Your task to perform on an android device: turn off picture-in-picture Image 0: 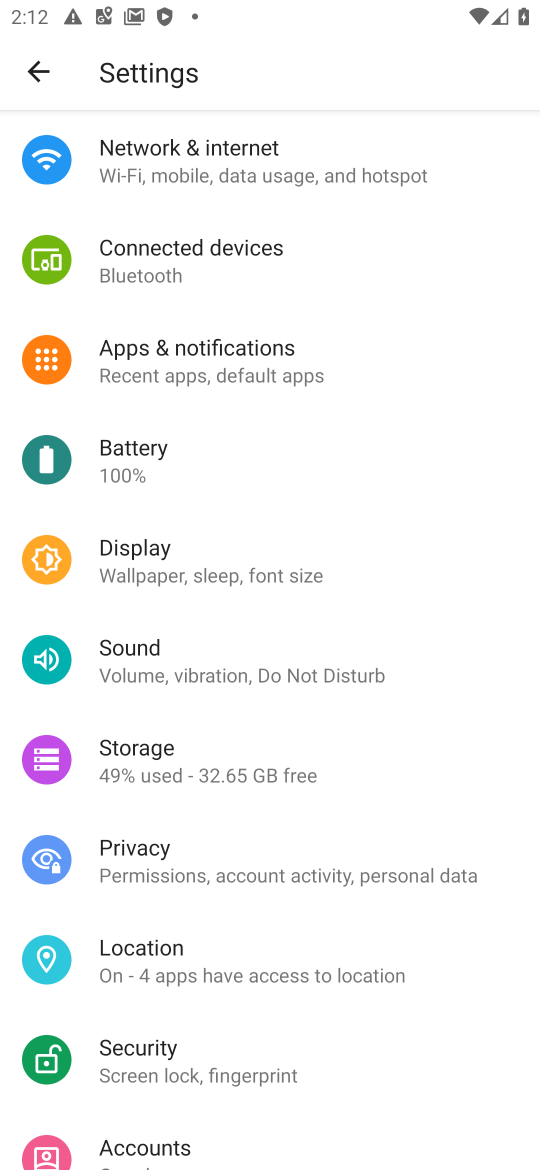
Step 0: press home button
Your task to perform on an android device: turn off picture-in-picture Image 1: 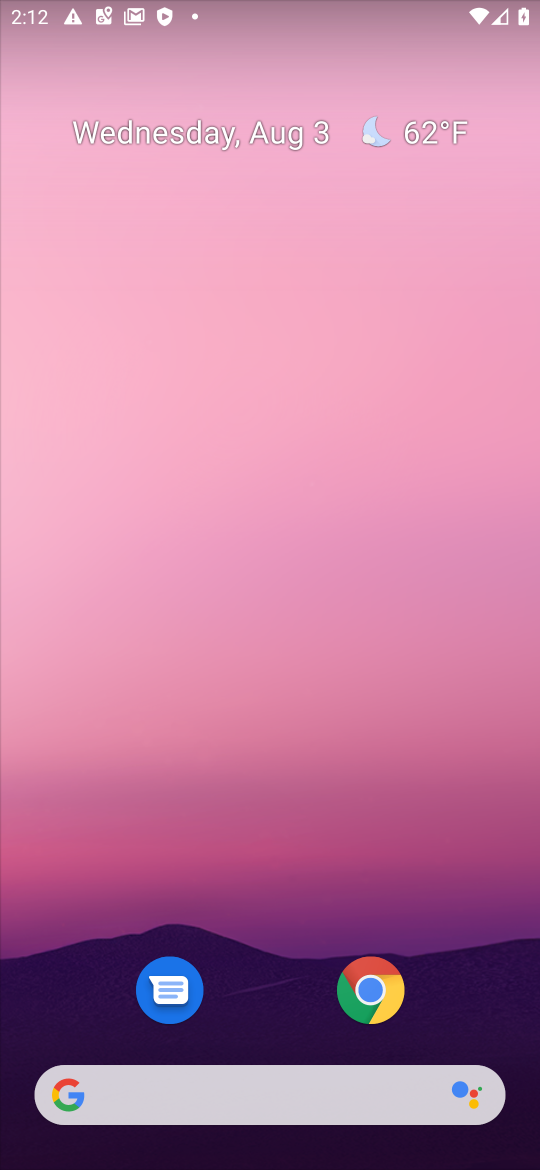
Step 1: click (384, 994)
Your task to perform on an android device: turn off picture-in-picture Image 2: 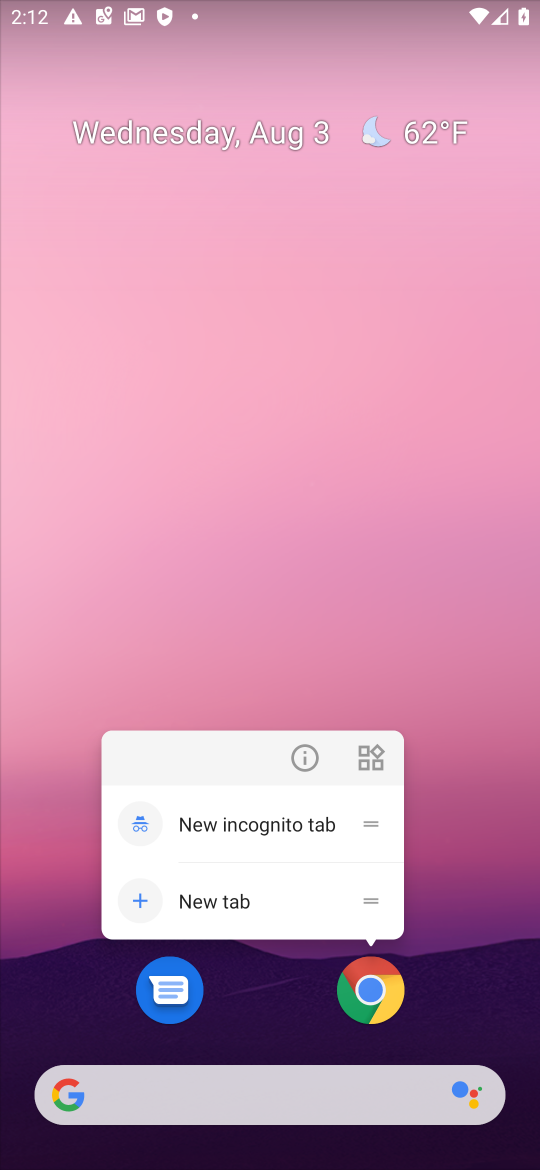
Step 2: click (300, 750)
Your task to perform on an android device: turn off picture-in-picture Image 3: 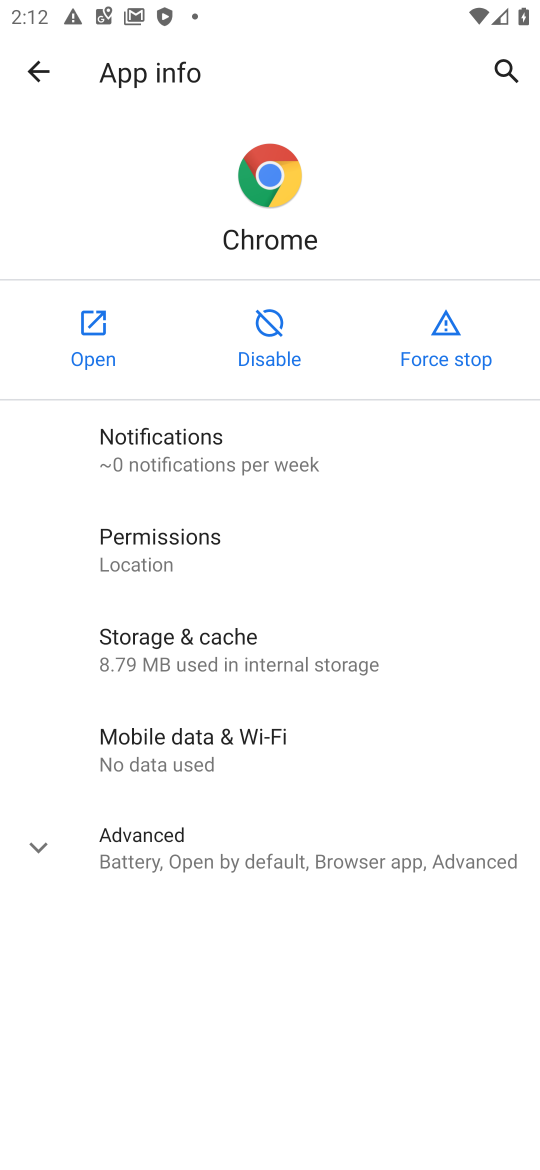
Step 3: click (230, 842)
Your task to perform on an android device: turn off picture-in-picture Image 4: 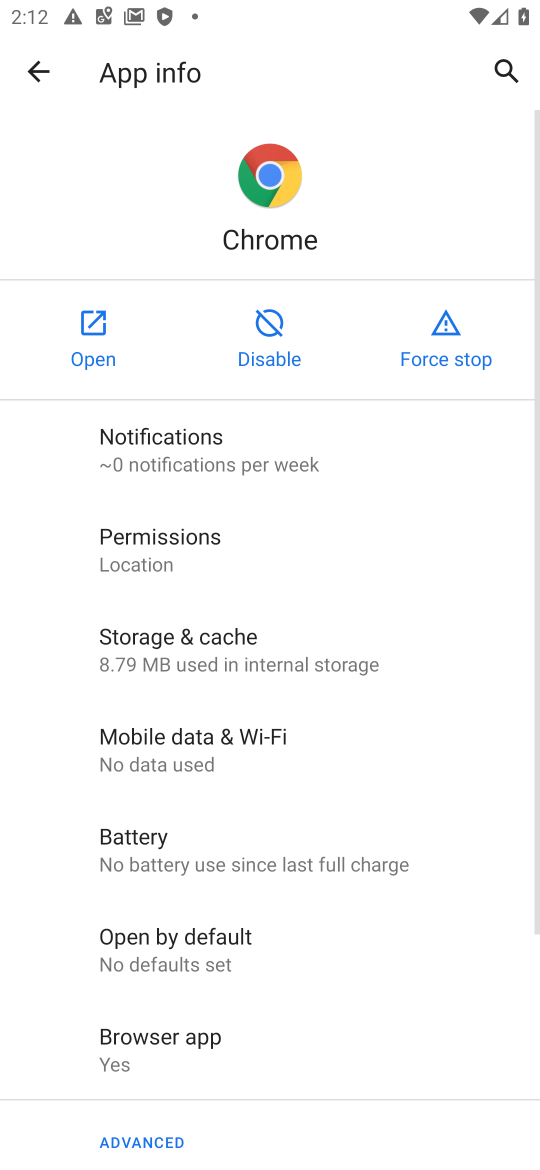
Step 4: drag from (217, 1090) to (213, 463)
Your task to perform on an android device: turn off picture-in-picture Image 5: 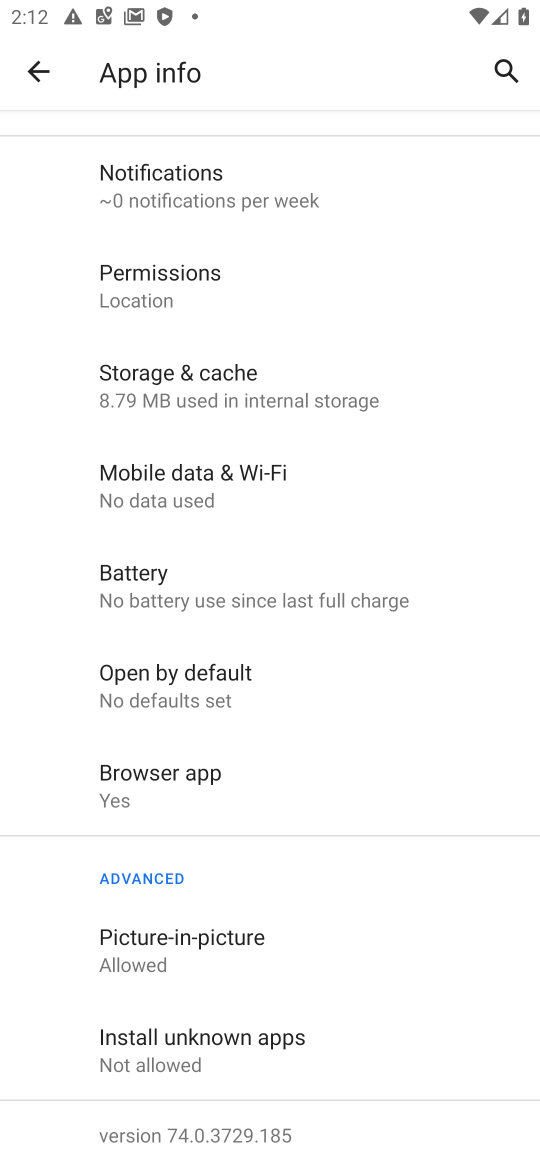
Step 5: click (173, 952)
Your task to perform on an android device: turn off picture-in-picture Image 6: 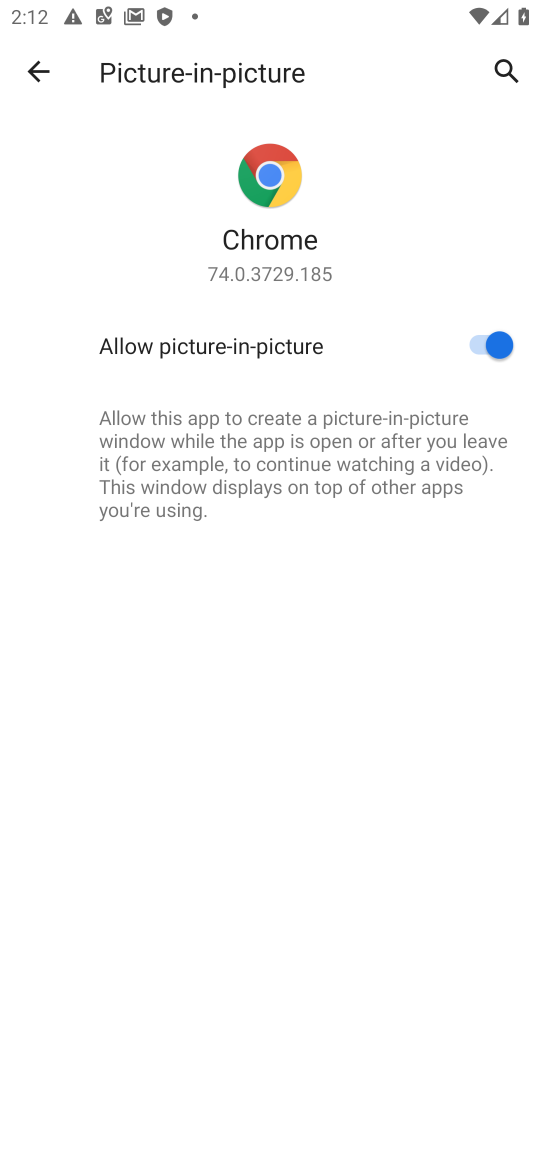
Step 6: click (479, 340)
Your task to perform on an android device: turn off picture-in-picture Image 7: 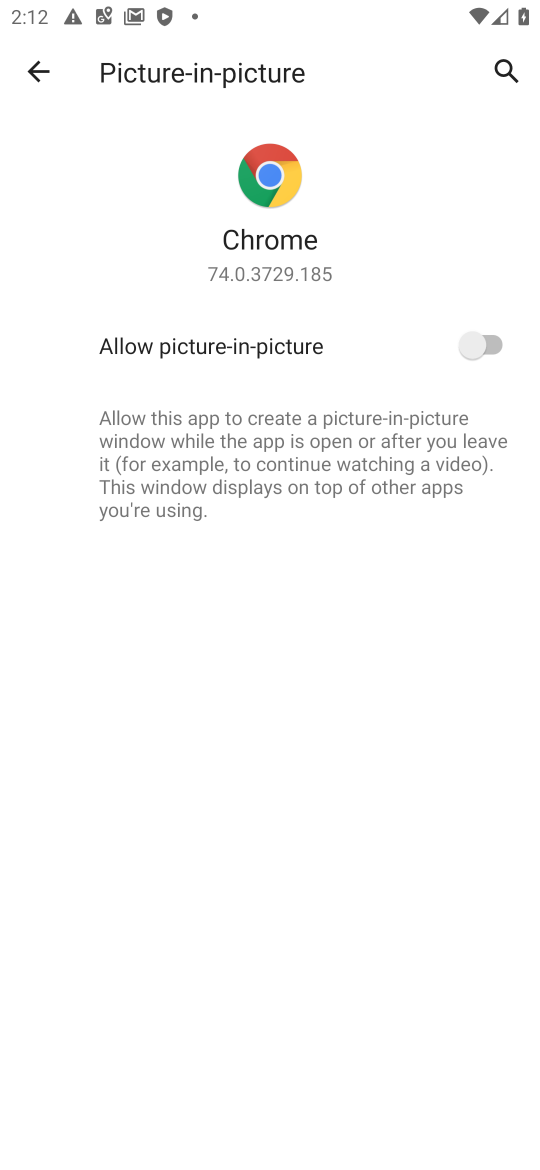
Step 7: task complete